Your task to perform on an android device: turn off location Image 0: 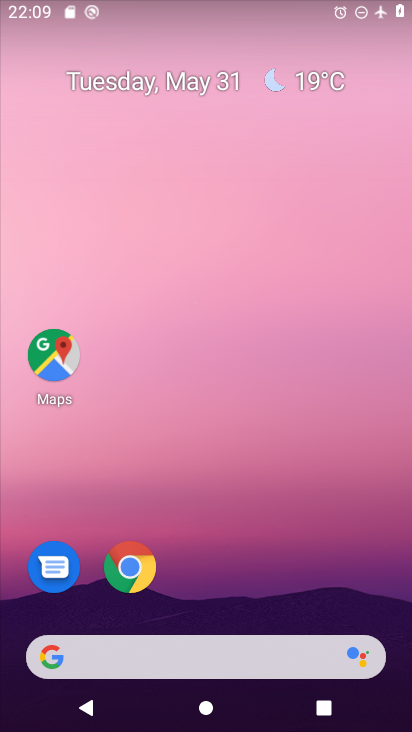
Step 0: drag from (185, 591) to (204, 381)
Your task to perform on an android device: turn off location Image 1: 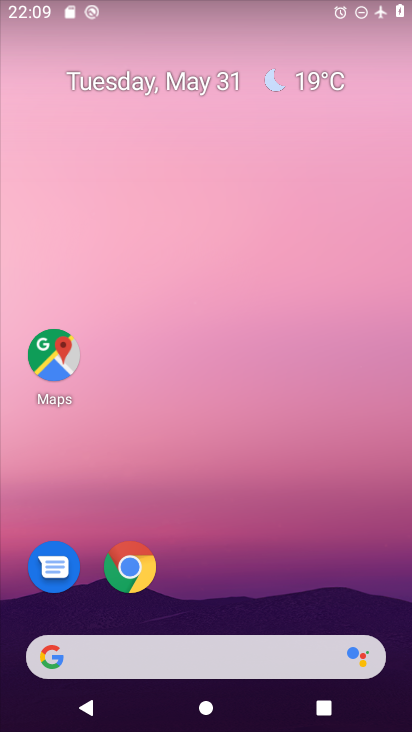
Step 1: drag from (179, 633) to (195, 348)
Your task to perform on an android device: turn off location Image 2: 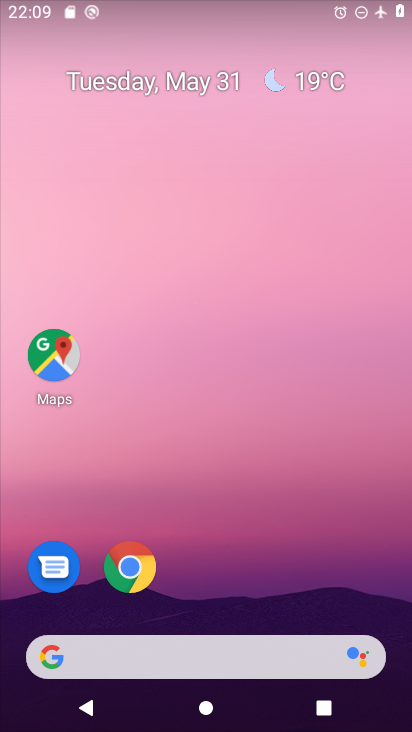
Step 2: drag from (175, 644) to (239, 157)
Your task to perform on an android device: turn off location Image 3: 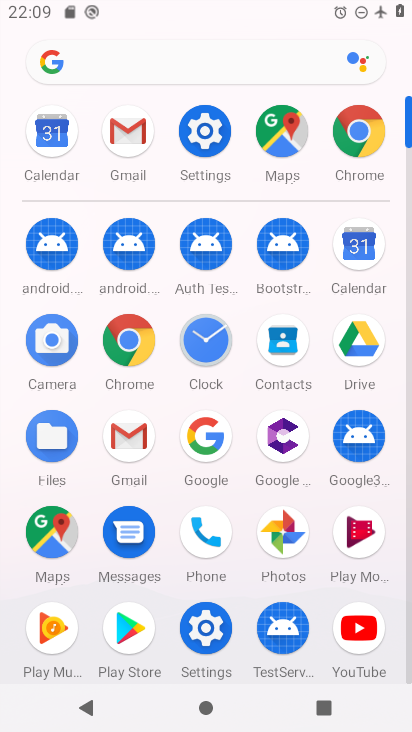
Step 3: click (204, 132)
Your task to perform on an android device: turn off location Image 4: 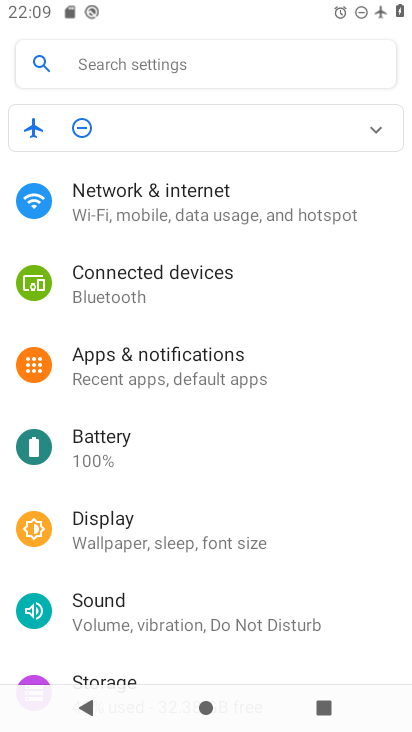
Step 4: drag from (134, 635) to (134, 315)
Your task to perform on an android device: turn off location Image 5: 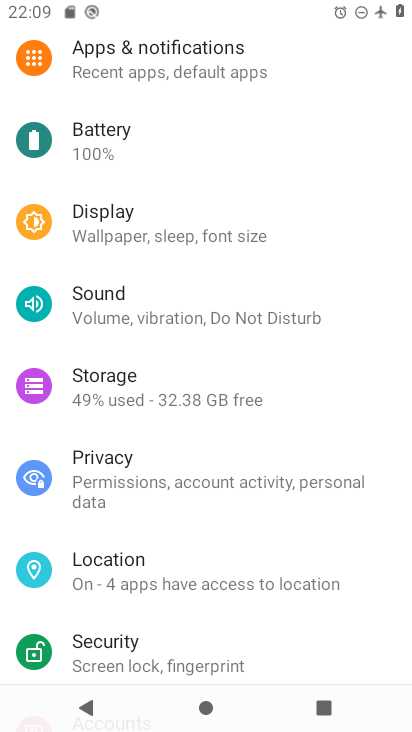
Step 5: click (128, 587)
Your task to perform on an android device: turn off location Image 6: 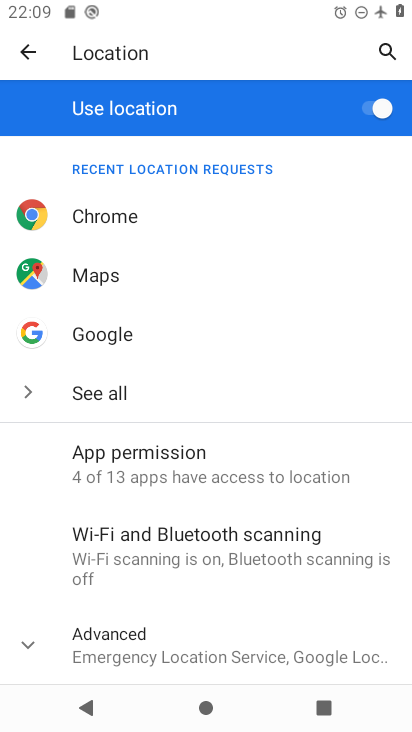
Step 6: click (365, 109)
Your task to perform on an android device: turn off location Image 7: 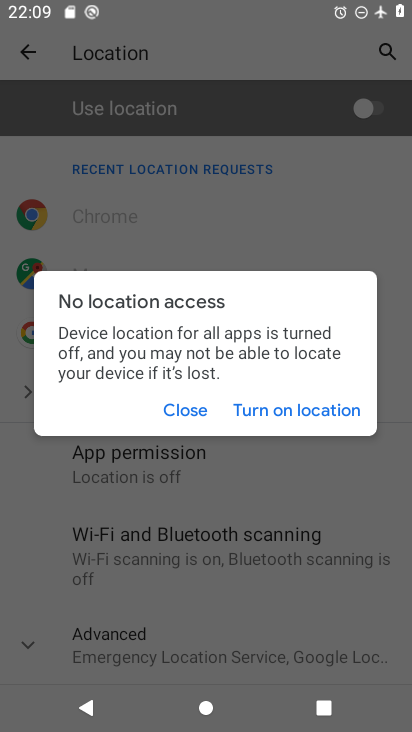
Step 7: click (187, 410)
Your task to perform on an android device: turn off location Image 8: 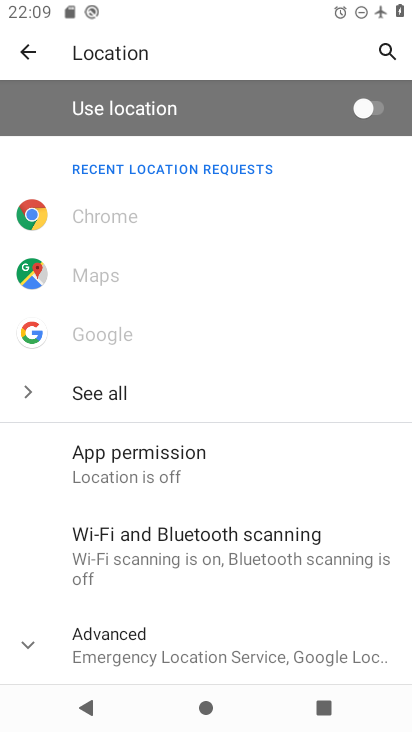
Step 8: task complete